Your task to perform on an android device: toggle wifi Image 0: 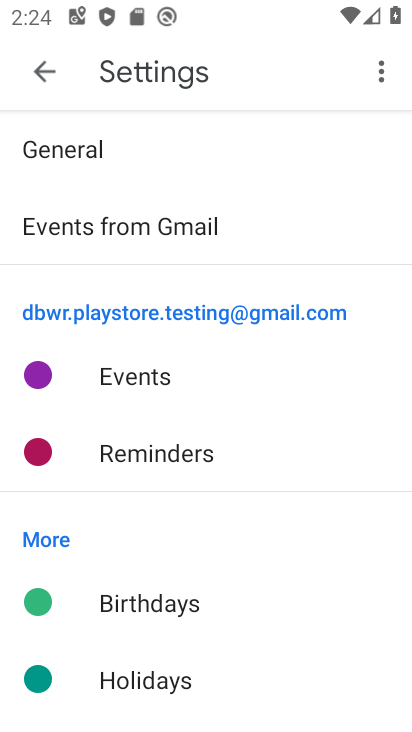
Step 0: press home button
Your task to perform on an android device: toggle wifi Image 1: 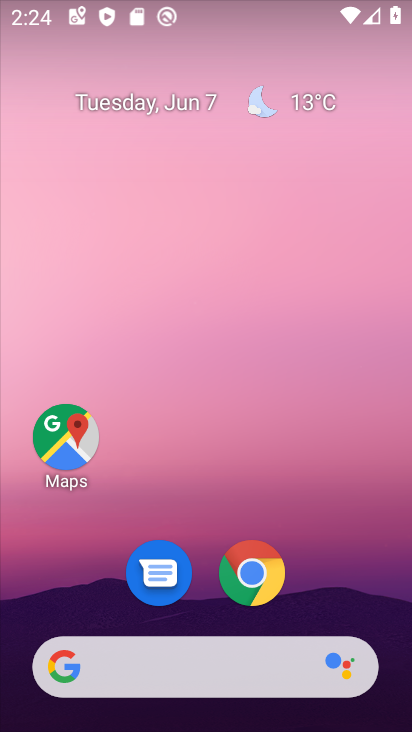
Step 1: drag from (346, 599) to (384, 0)
Your task to perform on an android device: toggle wifi Image 2: 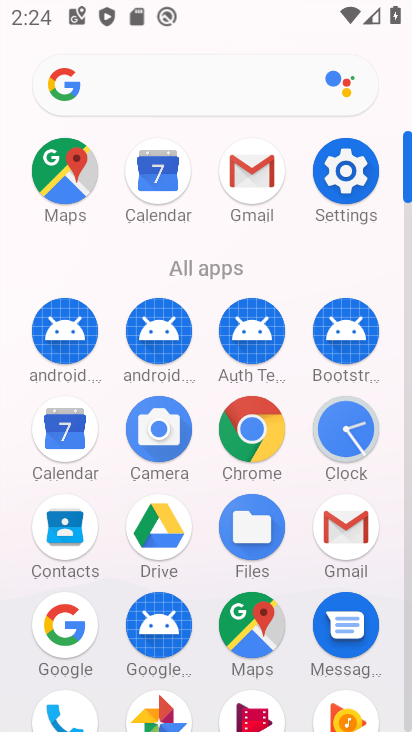
Step 2: click (343, 169)
Your task to perform on an android device: toggle wifi Image 3: 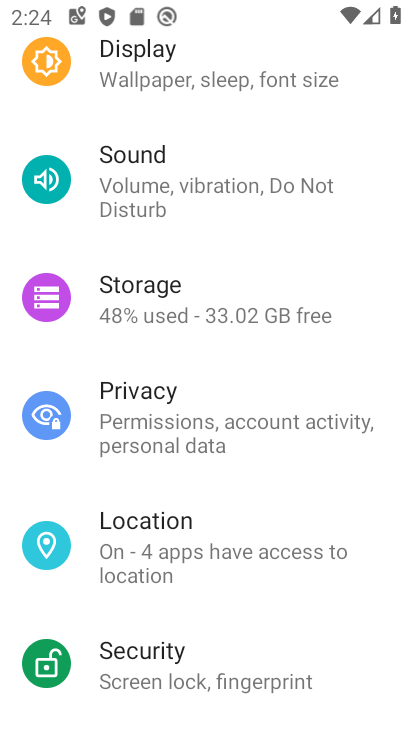
Step 3: drag from (186, 230) to (240, 718)
Your task to perform on an android device: toggle wifi Image 4: 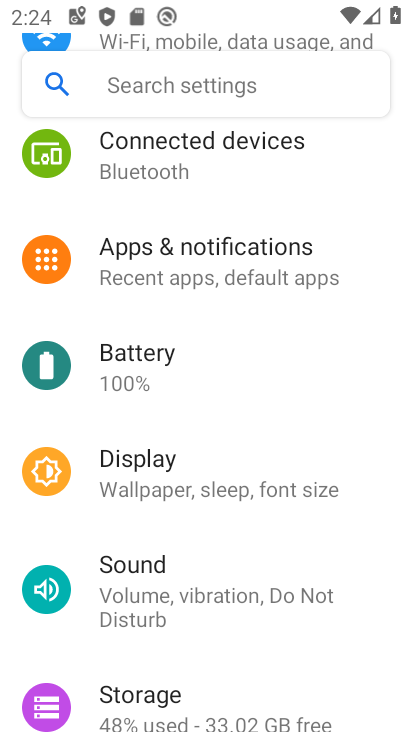
Step 4: drag from (212, 222) to (169, 729)
Your task to perform on an android device: toggle wifi Image 5: 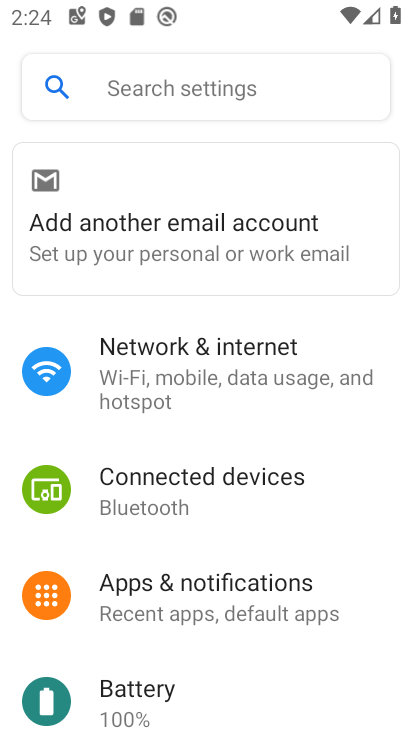
Step 5: click (161, 340)
Your task to perform on an android device: toggle wifi Image 6: 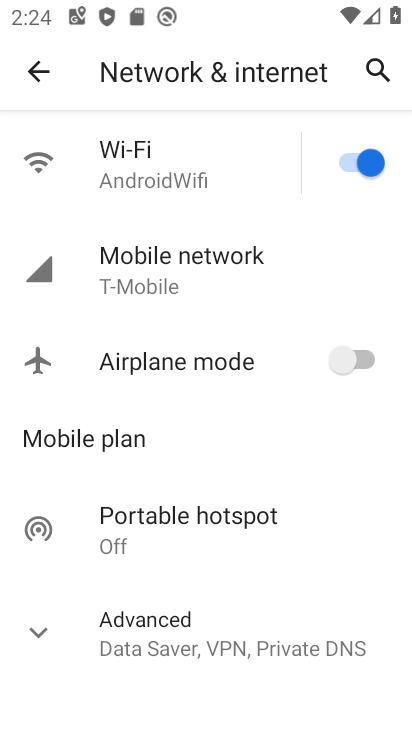
Step 6: click (366, 158)
Your task to perform on an android device: toggle wifi Image 7: 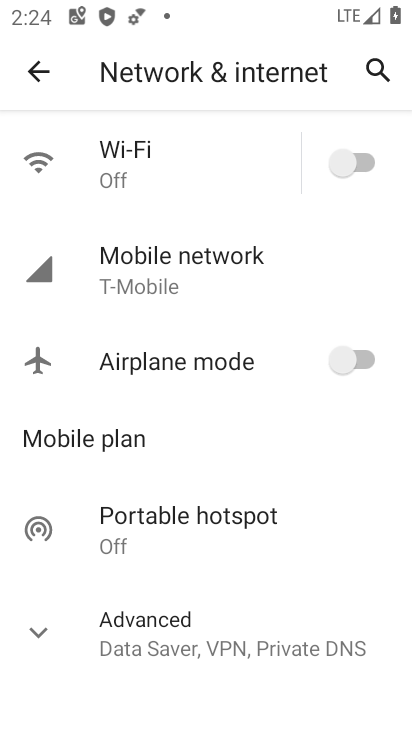
Step 7: task complete